Your task to perform on an android device: Open wifi settings Image 0: 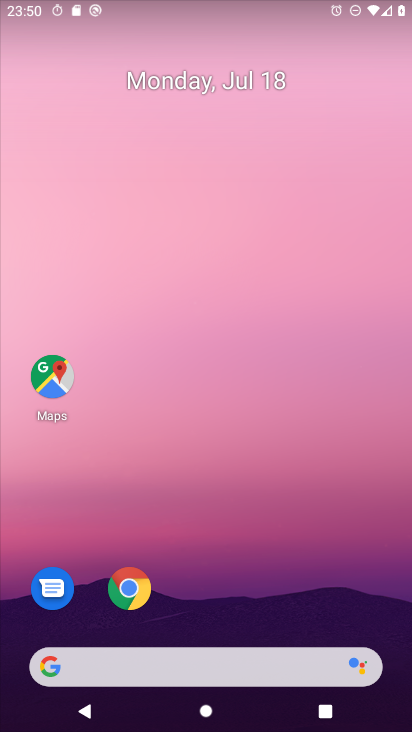
Step 0: press home button
Your task to perform on an android device: Open wifi settings Image 1: 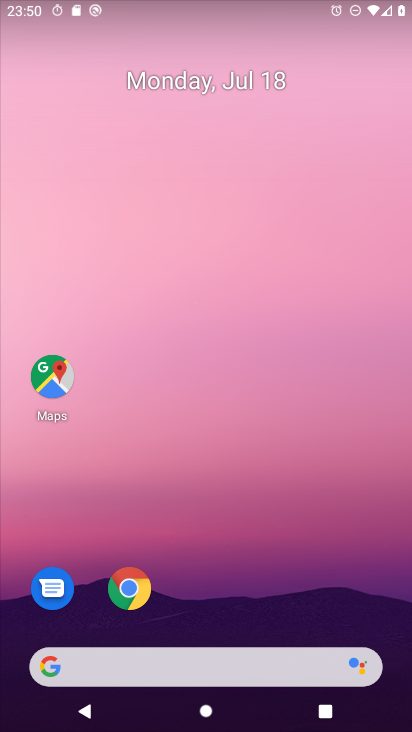
Step 1: drag from (170, 672) to (266, 208)
Your task to perform on an android device: Open wifi settings Image 2: 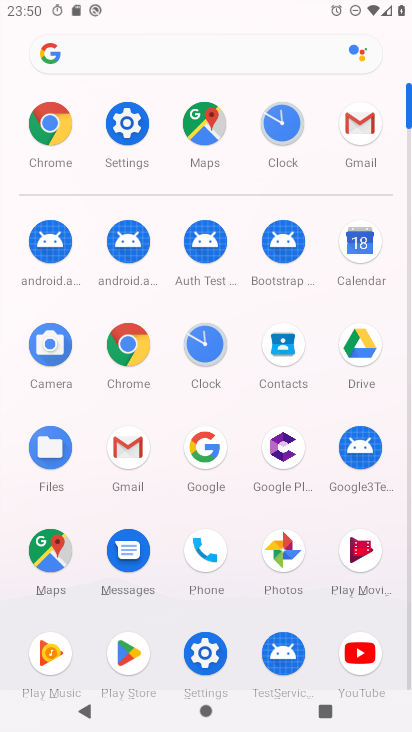
Step 2: click (124, 122)
Your task to perform on an android device: Open wifi settings Image 3: 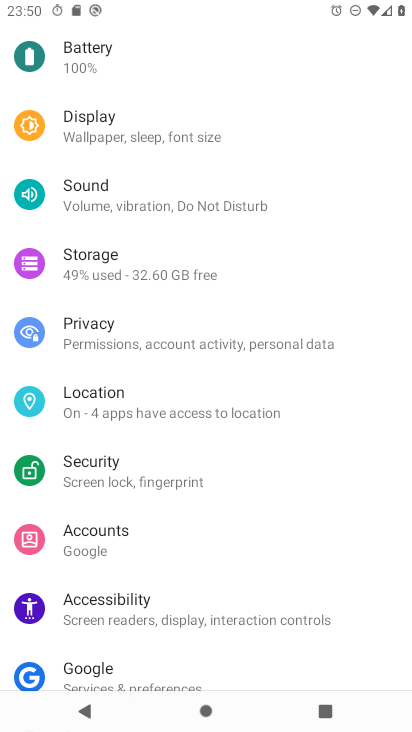
Step 3: drag from (315, 105) to (272, 637)
Your task to perform on an android device: Open wifi settings Image 4: 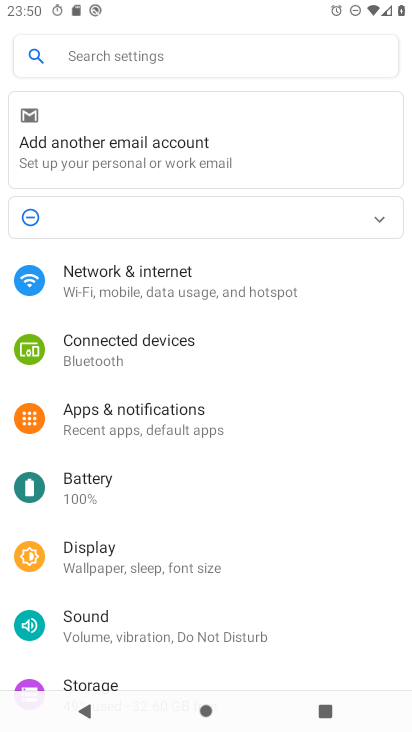
Step 4: click (174, 285)
Your task to perform on an android device: Open wifi settings Image 5: 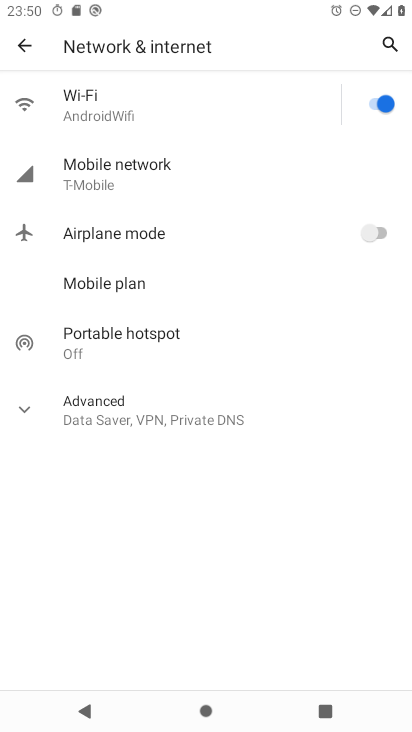
Step 5: click (89, 113)
Your task to perform on an android device: Open wifi settings Image 6: 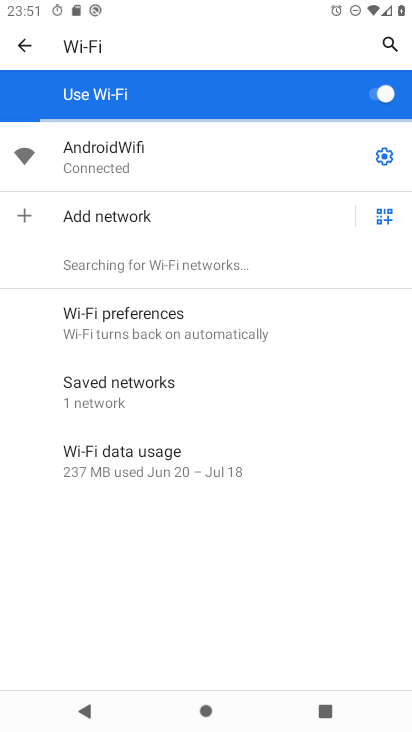
Step 6: task complete